Your task to perform on an android device: toggle sleep mode Image 0: 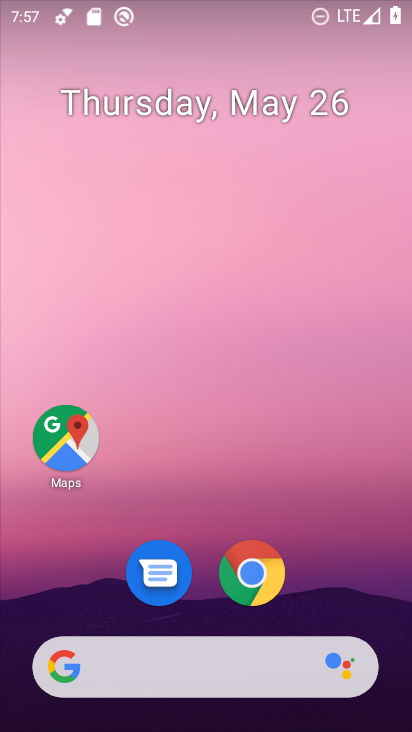
Step 0: drag from (339, 439) to (242, 0)
Your task to perform on an android device: toggle sleep mode Image 1: 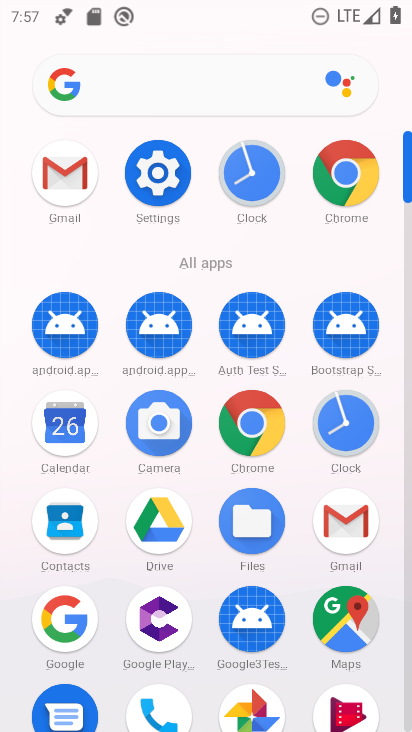
Step 1: drag from (2, 418) to (1, 235)
Your task to perform on an android device: toggle sleep mode Image 2: 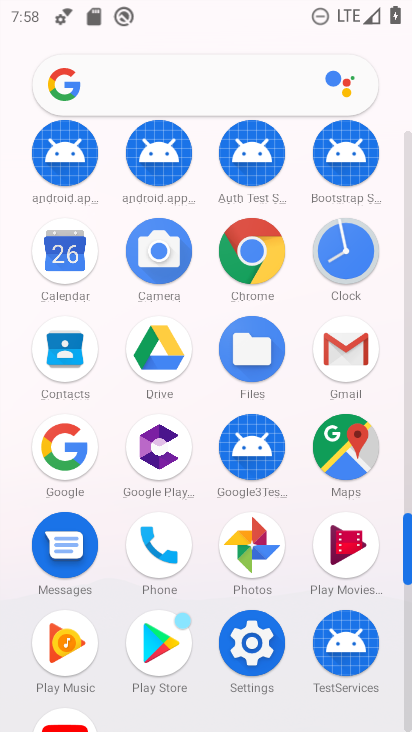
Step 2: click (253, 643)
Your task to perform on an android device: toggle sleep mode Image 3: 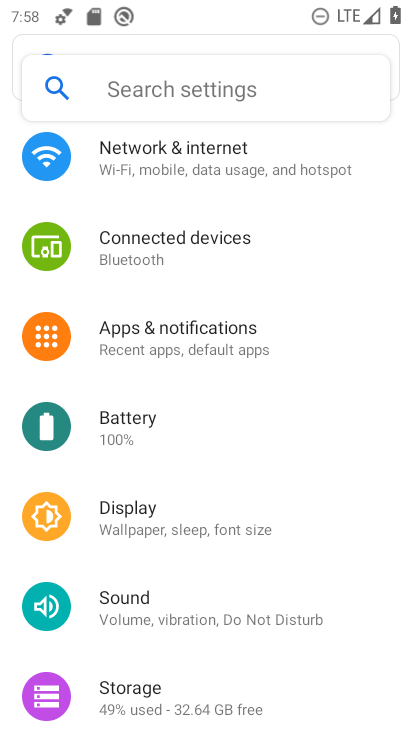
Step 3: click (191, 502)
Your task to perform on an android device: toggle sleep mode Image 4: 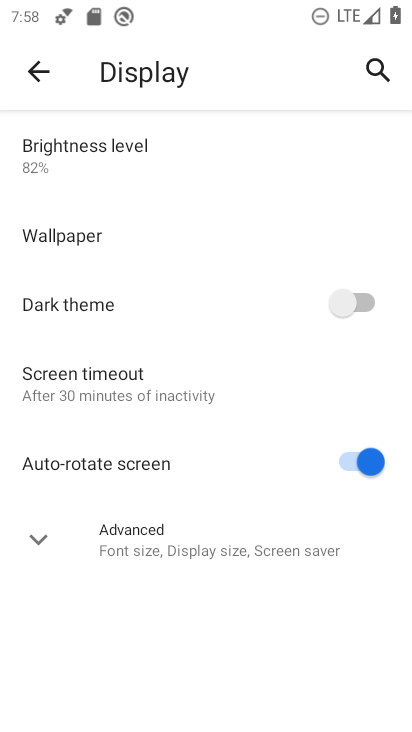
Step 4: click (103, 528)
Your task to perform on an android device: toggle sleep mode Image 5: 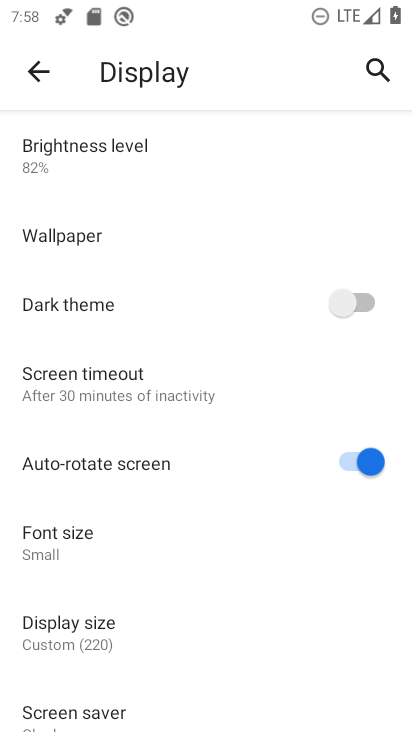
Step 5: task complete